Your task to perform on an android device: turn off javascript in the chrome app Image 0: 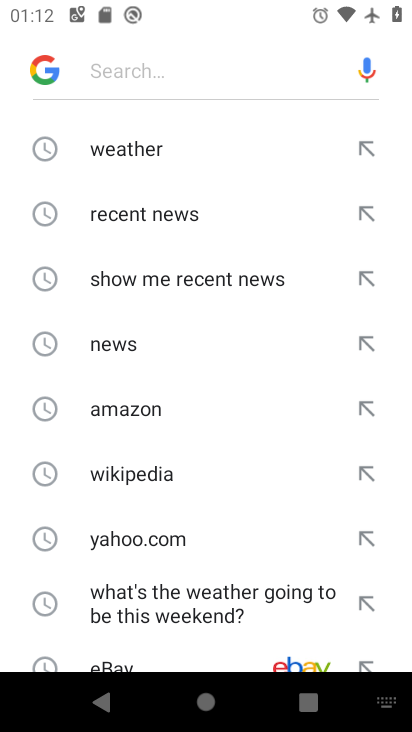
Step 0: press home button
Your task to perform on an android device: turn off javascript in the chrome app Image 1: 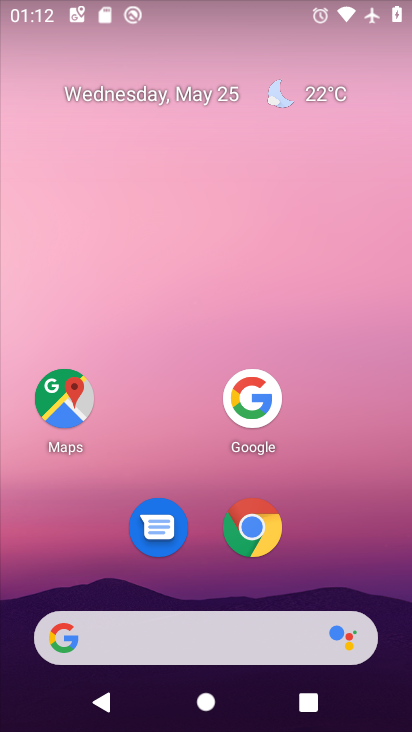
Step 1: click (257, 530)
Your task to perform on an android device: turn off javascript in the chrome app Image 2: 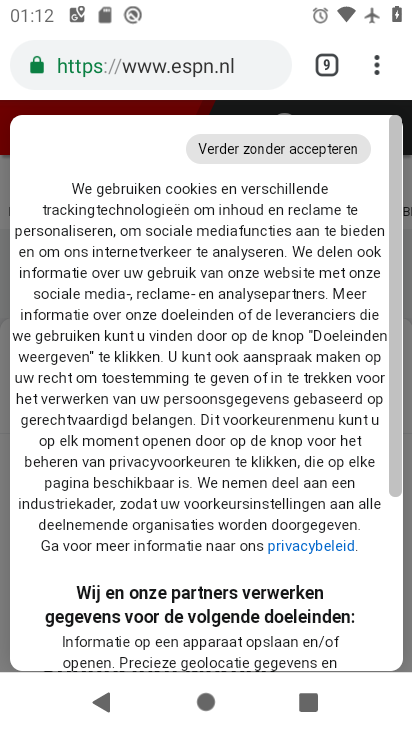
Step 2: drag from (370, 67) to (215, 580)
Your task to perform on an android device: turn off javascript in the chrome app Image 3: 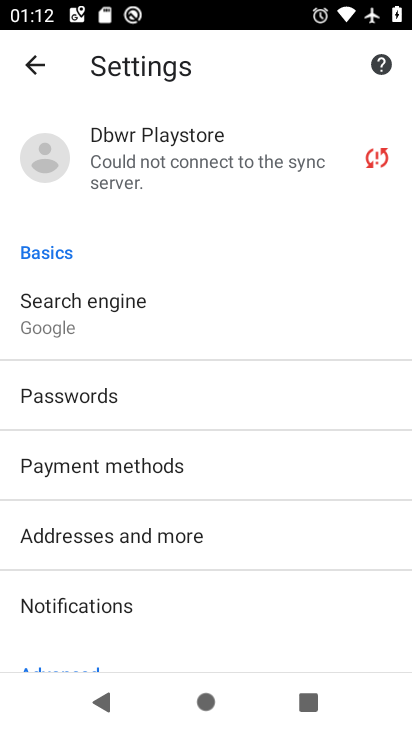
Step 3: drag from (175, 639) to (286, 236)
Your task to perform on an android device: turn off javascript in the chrome app Image 4: 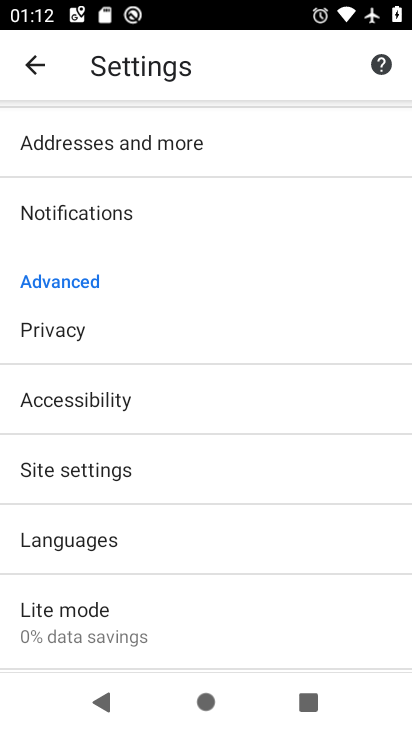
Step 4: click (111, 473)
Your task to perform on an android device: turn off javascript in the chrome app Image 5: 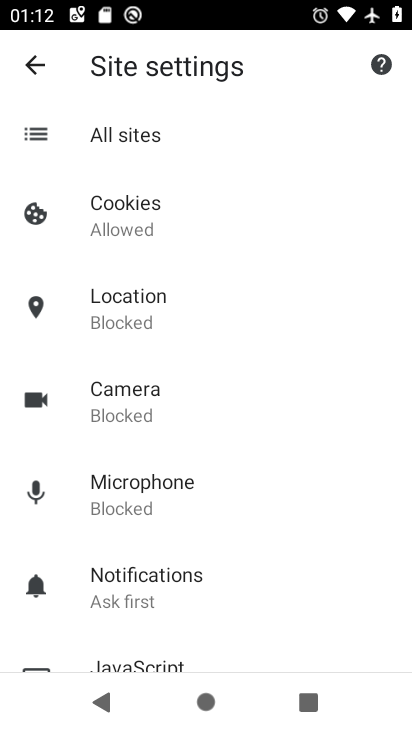
Step 5: drag from (209, 568) to (316, 286)
Your task to perform on an android device: turn off javascript in the chrome app Image 6: 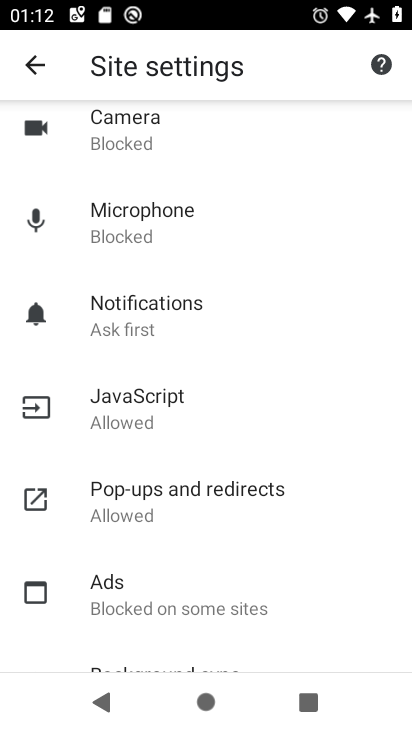
Step 6: click (160, 397)
Your task to perform on an android device: turn off javascript in the chrome app Image 7: 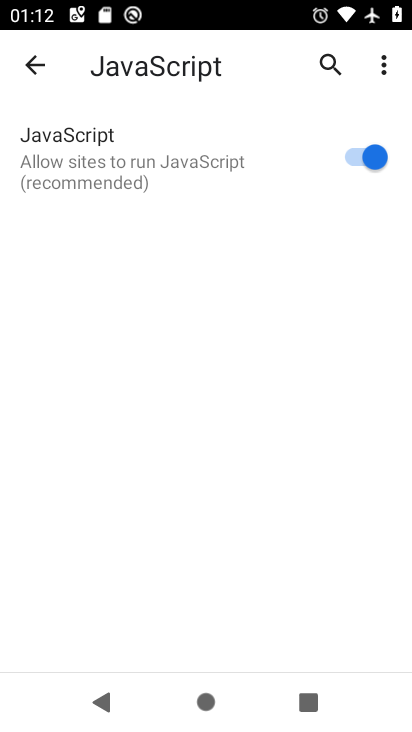
Step 7: click (357, 156)
Your task to perform on an android device: turn off javascript in the chrome app Image 8: 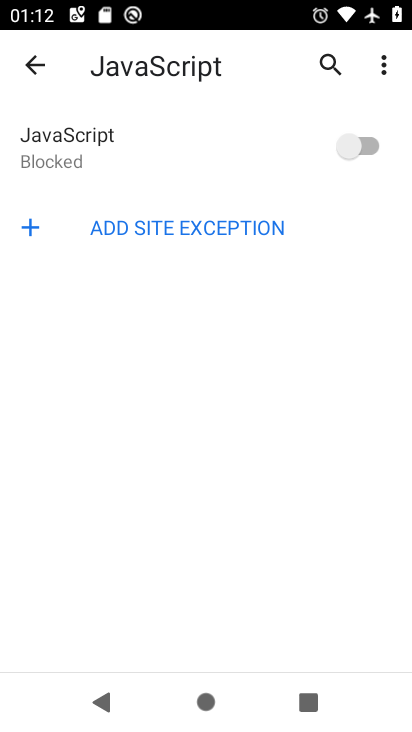
Step 8: task complete